Your task to perform on an android device: move a message to another label in the gmail app Image 0: 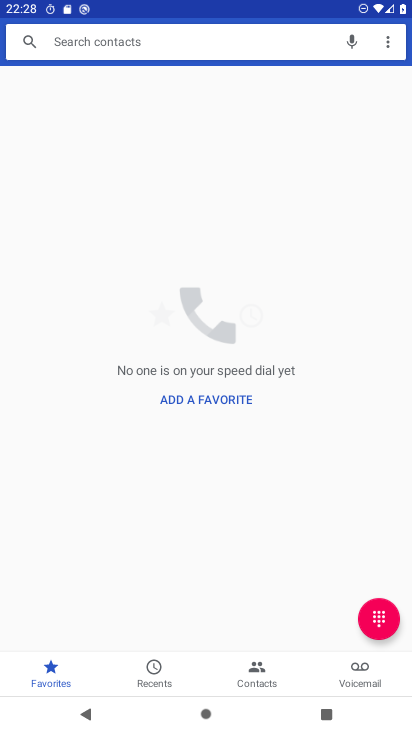
Step 0: press home button
Your task to perform on an android device: move a message to another label in the gmail app Image 1: 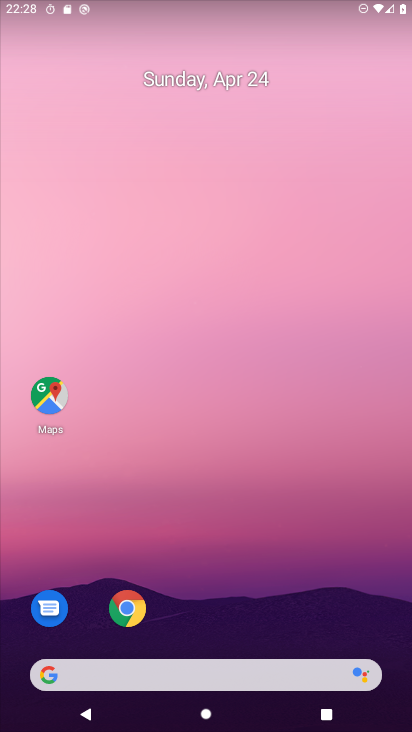
Step 1: drag from (260, 572) to (293, 63)
Your task to perform on an android device: move a message to another label in the gmail app Image 2: 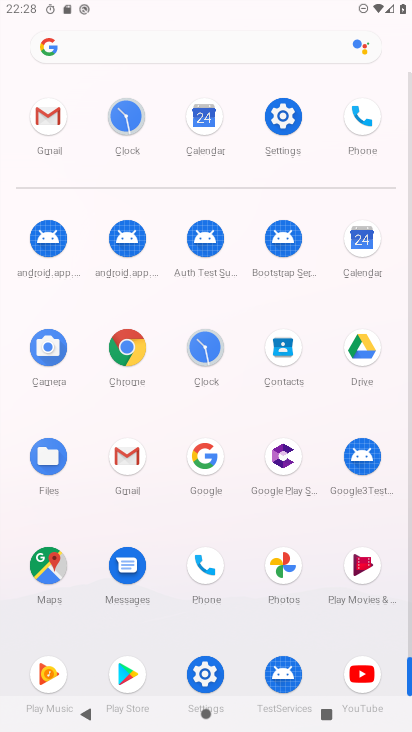
Step 2: click (46, 114)
Your task to perform on an android device: move a message to another label in the gmail app Image 3: 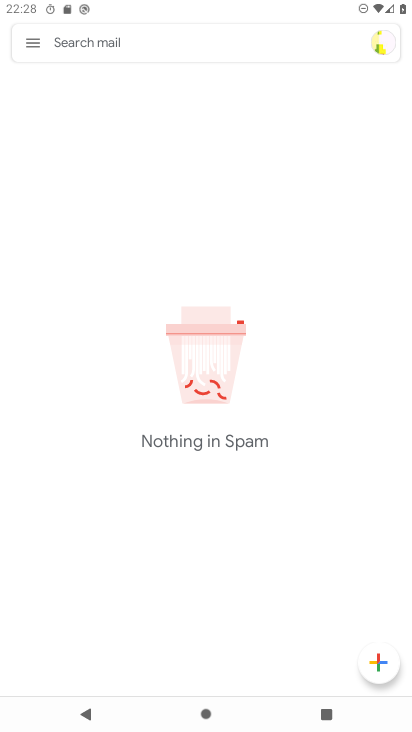
Step 3: click (33, 39)
Your task to perform on an android device: move a message to another label in the gmail app Image 4: 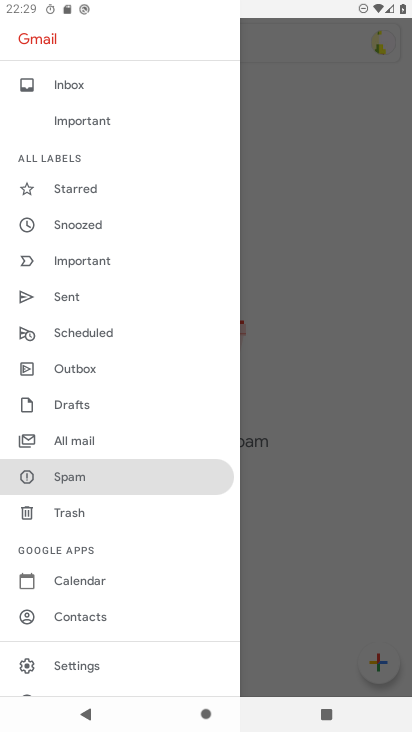
Step 4: click (100, 430)
Your task to perform on an android device: move a message to another label in the gmail app Image 5: 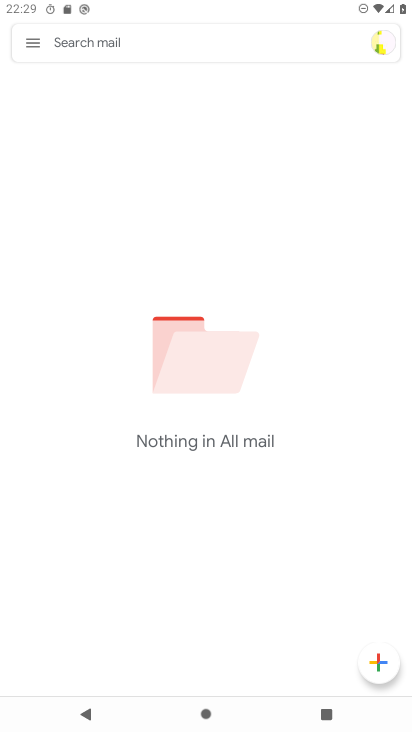
Step 5: task complete